Your task to perform on an android device: install app "Spotify: Music and Podcasts" Image 0: 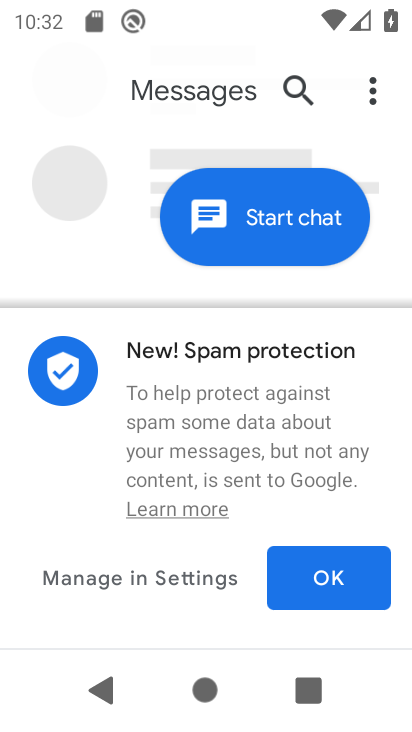
Step 0: press back button
Your task to perform on an android device: install app "Spotify: Music and Podcasts" Image 1: 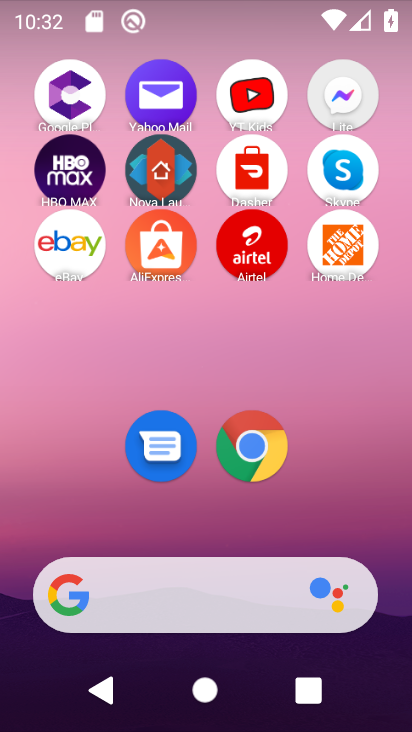
Step 1: drag from (191, 532) to (191, 107)
Your task to perform on an android device: install app "Spotify: Music and Podcasts" Image 2: 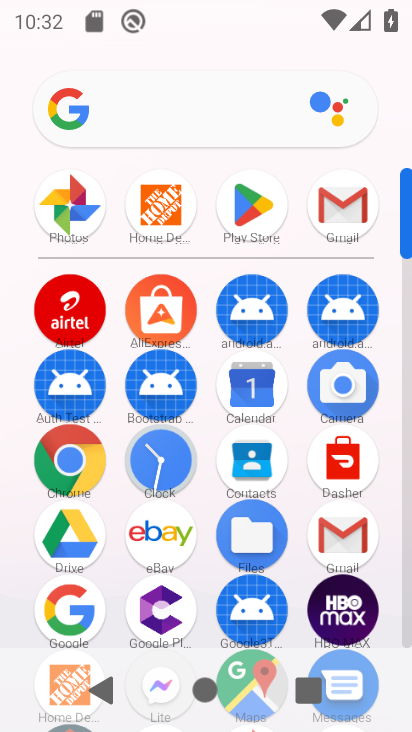
Step 2: click (256, 208)
Your task to perform on an android device: install app "Spotify: Music and Podcasts" Image 3: 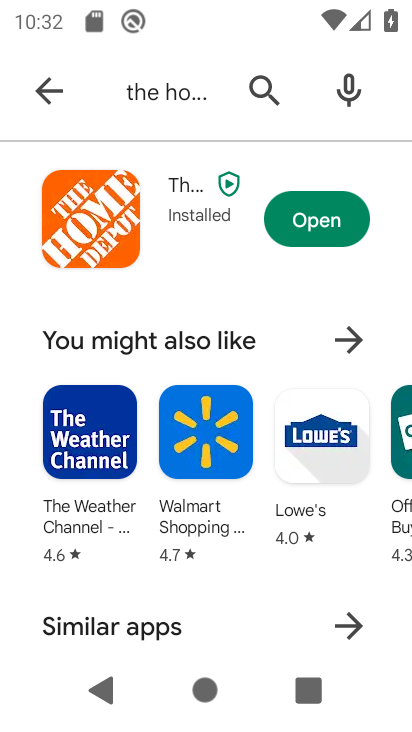
Step 3: click (254, 99)
Your task to perform on an android device: install app "Spotify: Music and Podcasts" Image 4: 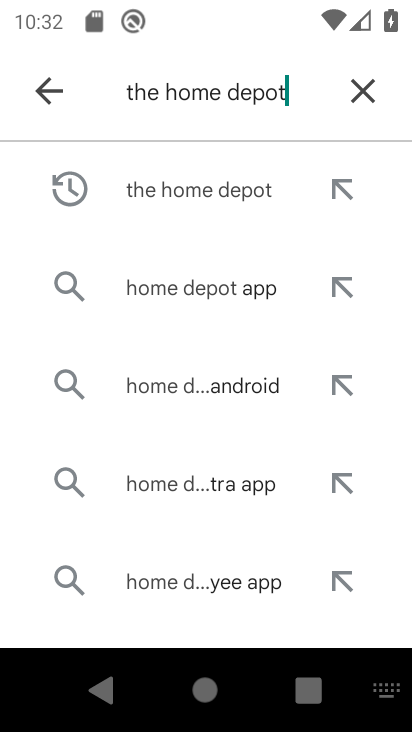
Step 4: click (364, 85)
Your task to perform on an android device: install app "Spotify: Music and Podcasts" Image 5: 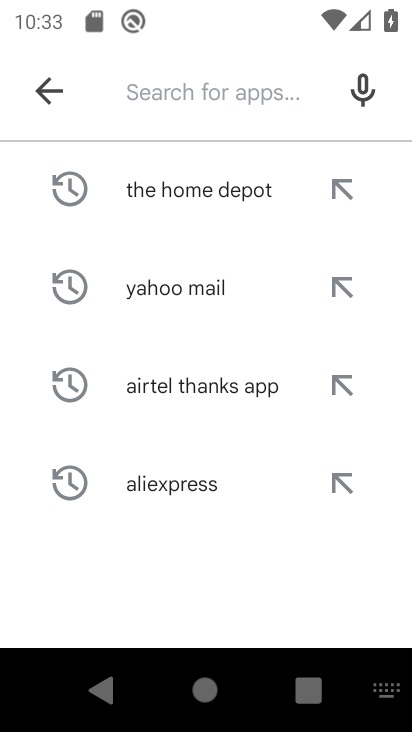
Step 5: type "Spotify: Music and Podcasts"
Your task to perform on an android device: install app "Spotify: Music and Podcasts" Image 6: 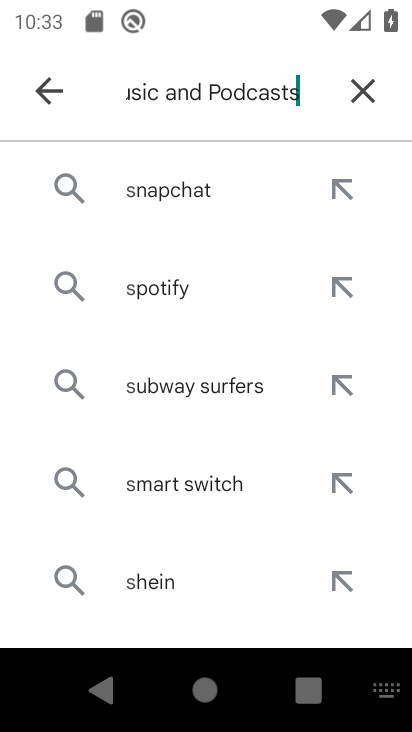
Step 6: type ""
Your task to perform on an android device: install app "Spotify: Music and Podcasts" Image 7: 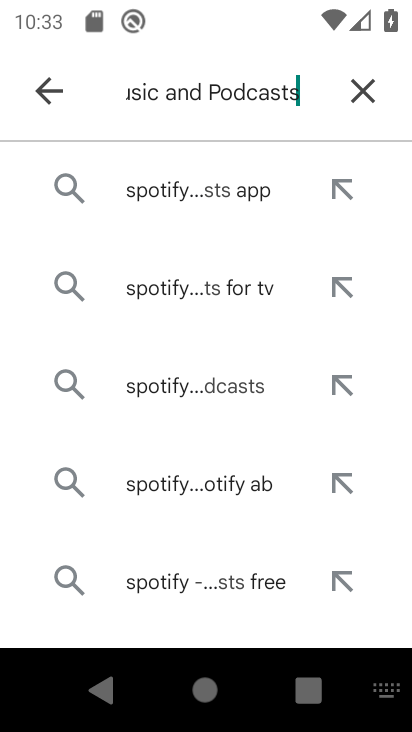
Step 7: click (217, 194)
Your task to perform on an android device: install app "Spotify: Music and Podcasts" Image 8: 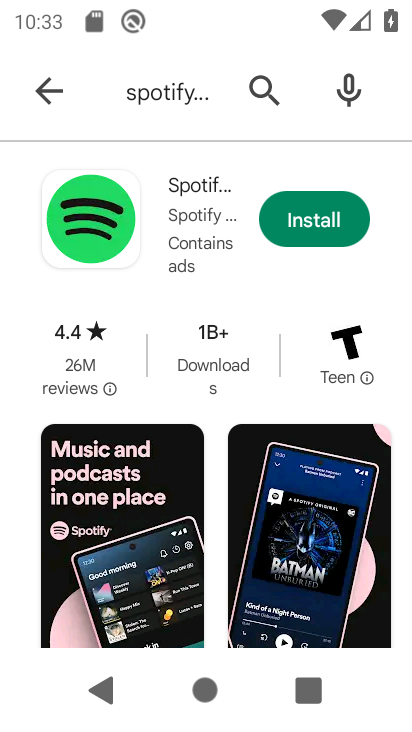
Step 8: click (311, 204)
Your task to perform on an android device: install app "Spotify: Music and Podcasts" Image 9: 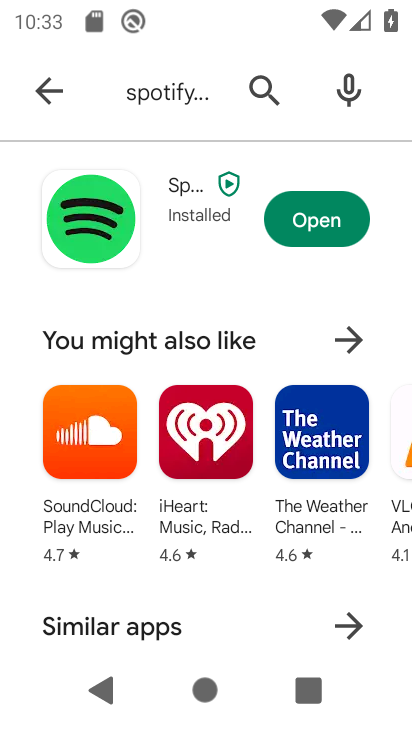
Step 9: task complete